Your task to perform on an android device: visit the assistant section in the google photos Image 0: 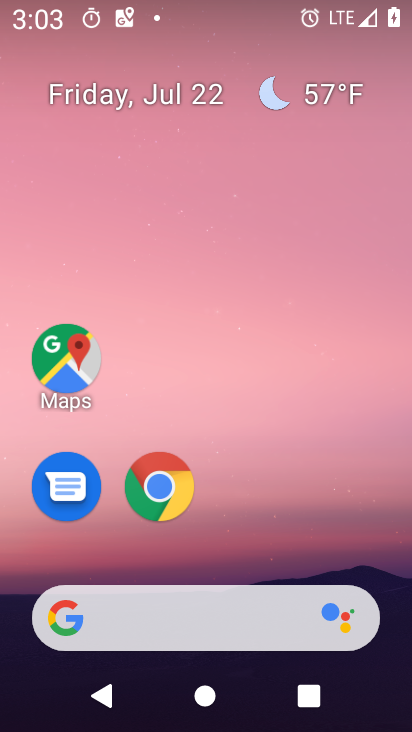
Step 0: press home button
Your task to perform on an android device: visit the assistant section in the google photos Image 1: 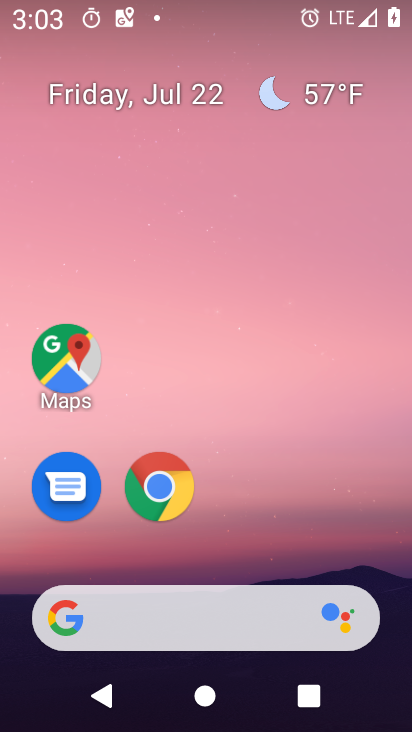
Step 1: drag from (355, 549) to (365, 100)
Your task to perform on an android device: visit the assistant section in the google photos Image 2: 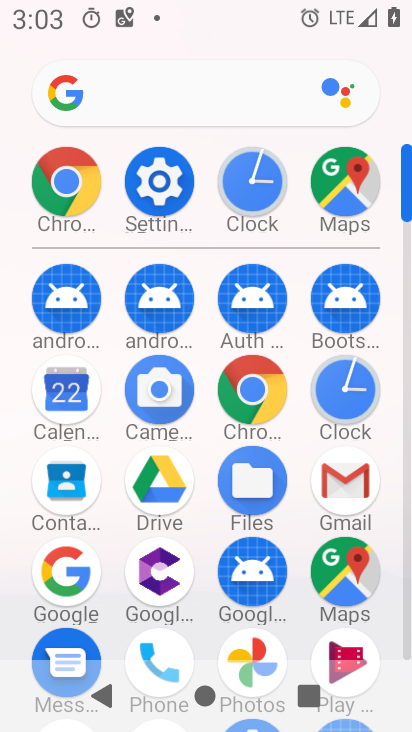
Step 2: drag from (401, 410) to (407, 223)
Your task to perform on an android device: visit the assistant section in the google photos Image 3: 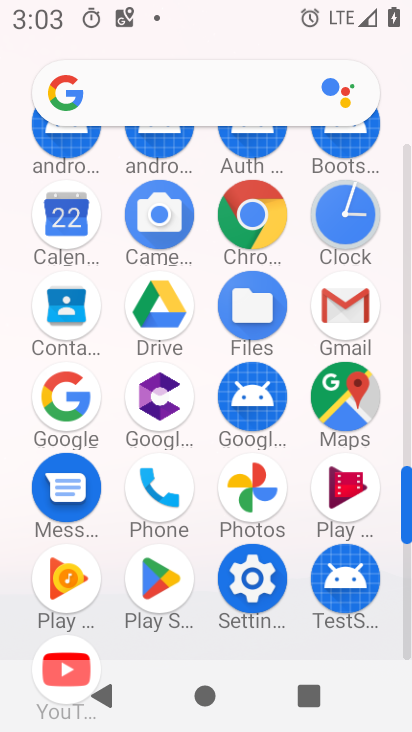
Step 3: click (260, 490)
Your task to perform on an android device: visit the assistant section in the google photos Image 4: 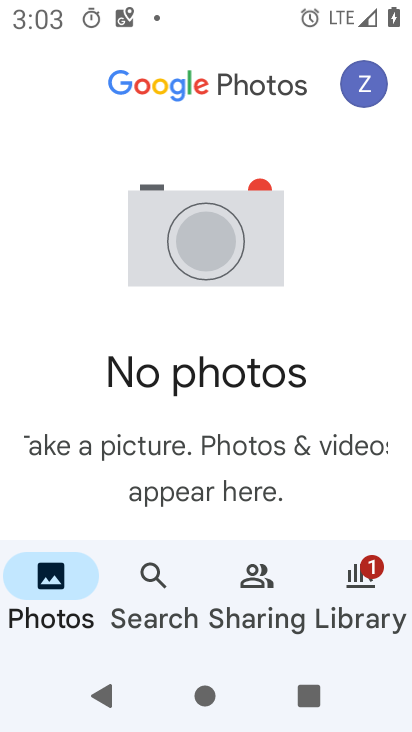
Step 4: click (355, 581)
Your task to perform on an android device: visit the assistant section in the google photos Image 5: 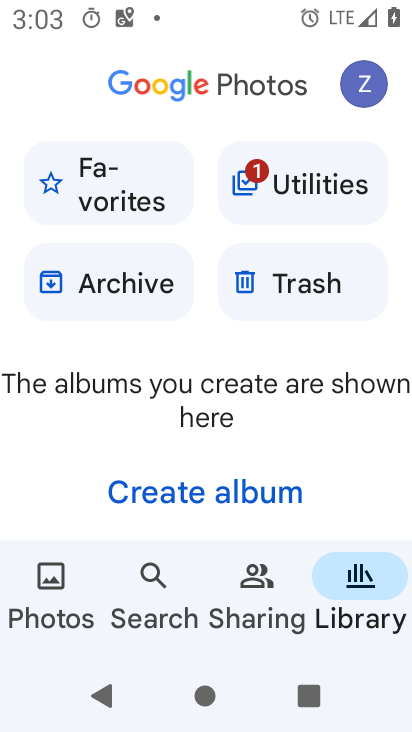
Step 5: task complete